Your task to perform on an android device: choose inbox layout in the gmail app Image 0: 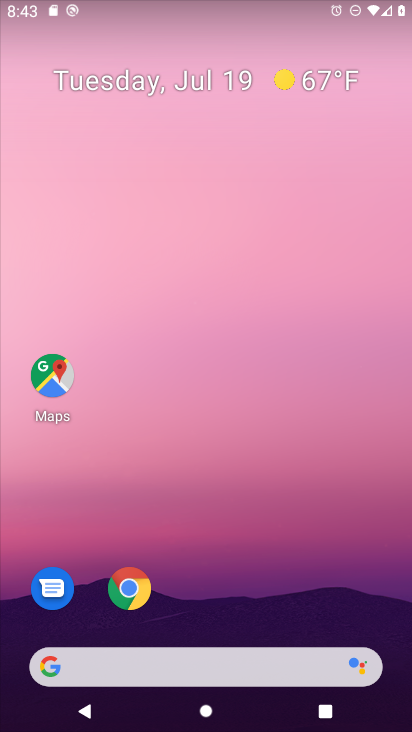
Step 0: drag from (352, 606) to (363, 117)
Your task to perform on an android device: choose inbox layout in the gmail app Image 1: 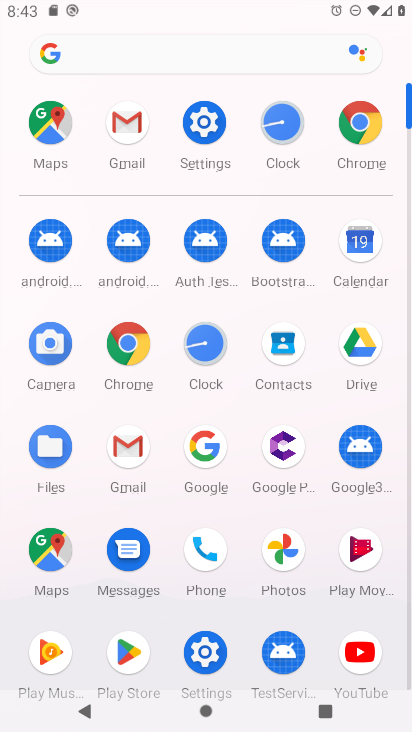
Step 1: click (124, 449)
Your task to perform on an android device: choose inbox layout in the gmail app Image 2: 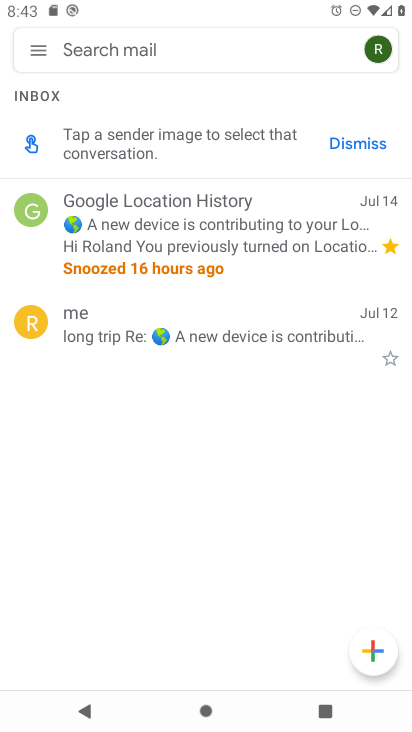
Step 2: click (38, 52)
Your task to perform on an android device: choose inbox layout in the gmail app Image 3: 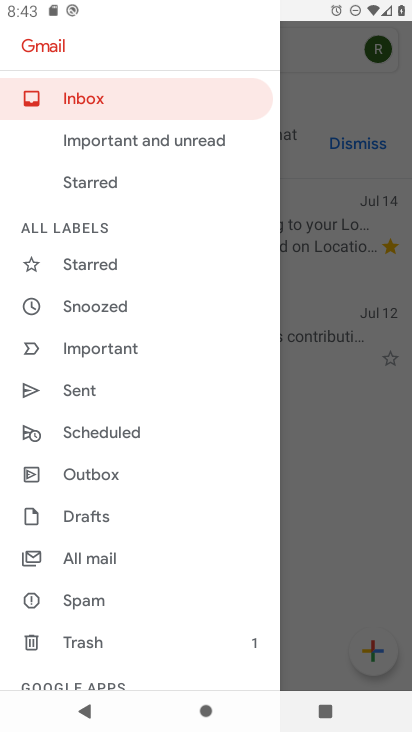
Step 3: drag from (225, 398) to (228, 347)
Your task to perform on an android device: choose inbox layout in the gmail app Image 4: 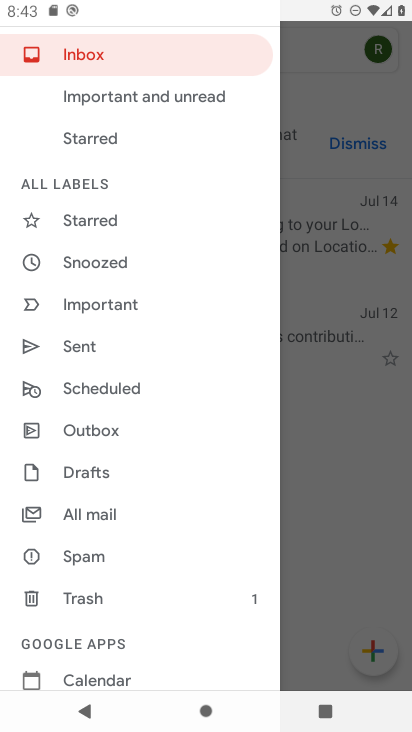
Step 4: drag from (209, 437) to (214, 392)
Your task to perform on an android device: choose inbox layout in the gmail app Image 5: 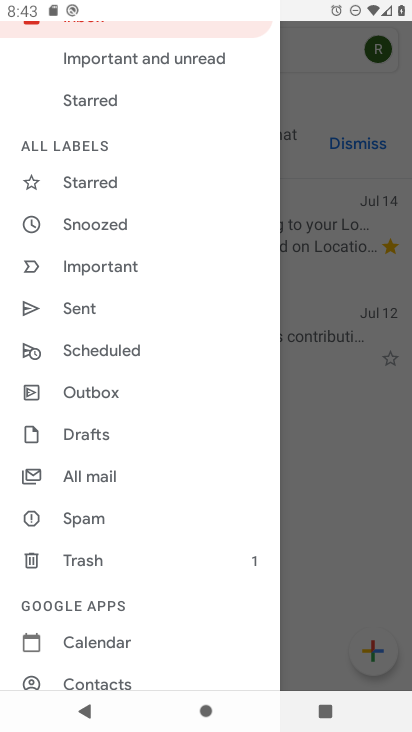
Step 5: drag from (203, 465) to (208, 349)
Your task to perform on an android device: choose inbox layout in the gmail app Image 6: 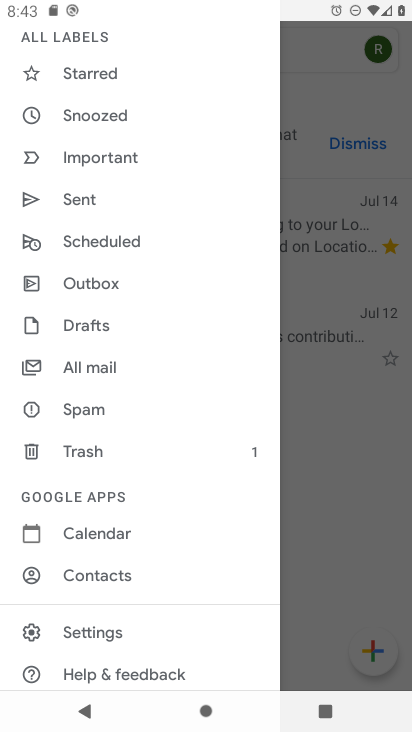
Step 6: click (176, 639)
Your task to perform on an android device: choose inbox layout in the gmail app Image 7: 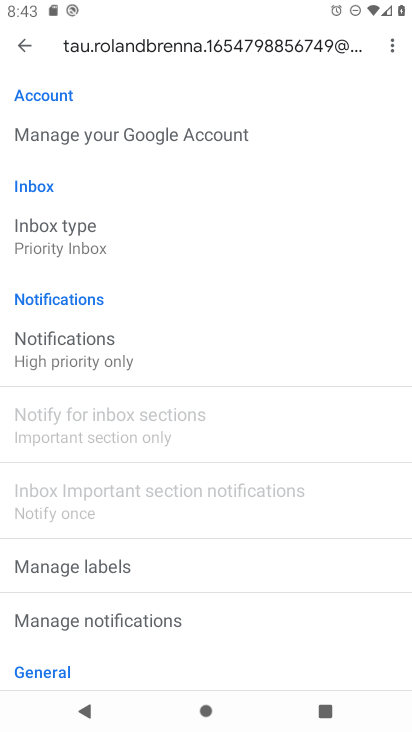
Step 7: drag from (337, 549) to (342, 468)
Your task to perform on an android device: choose inbox layout in the gmail app Image 8: 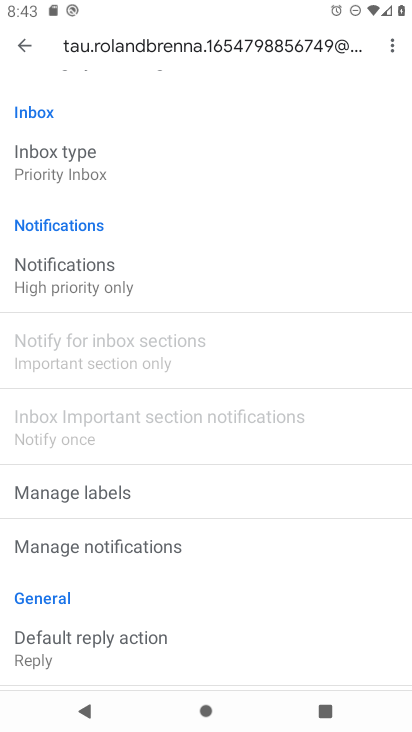
Step 8: drag from (351, 587) to (356, 498)
Your task to perform on an android device: choose inbox layout in the gmail app Image 9: 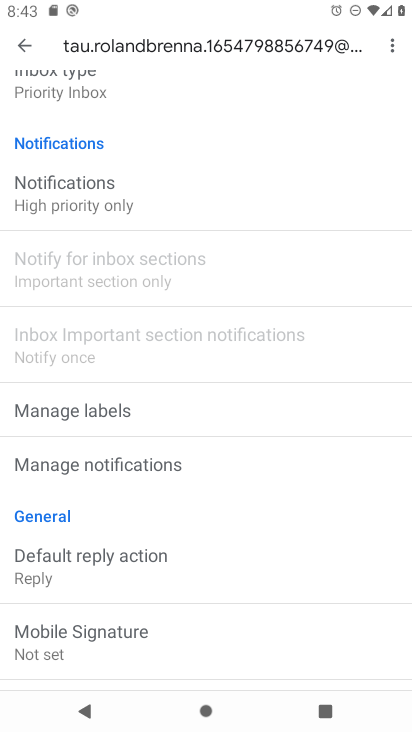
Step 9: drag from (338, 576) to (341, 497)
Your task to perform on an android device: choose inbox layout in the gmail app Image 10: 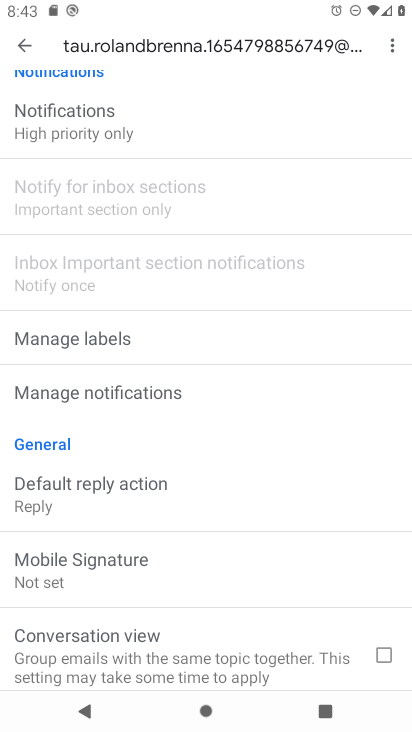
Step 10: drag from (321, 568) to (326, 484)
Your task to perform on an android device: choose inbox layout in the gmail app Image 11: 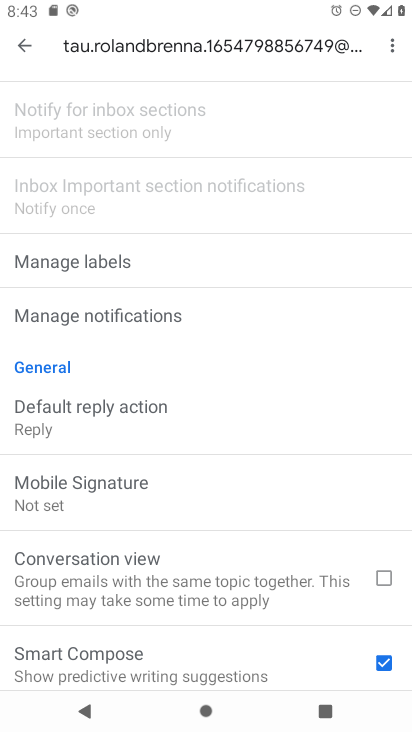
Step 11: drag from (323, 346) to (322, 435)
Your task to perform on an android device: choose inbox layout in the gmail app Image 12: 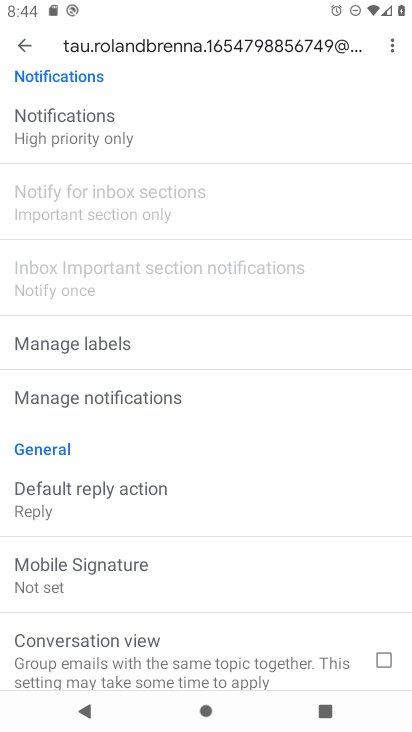
Step 12: drag from (327, 297) to (333, 408)
Your task to perform on an android device: choose inbox layout in the gmail app Image 13: 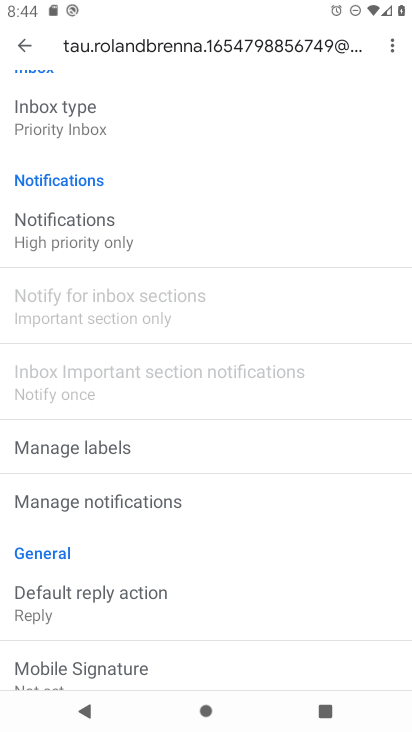
Step 13: drag from (345, 280) to (347, 391)
Your task to perform on an android device: choose inbox layout in the gmail app Image 14: 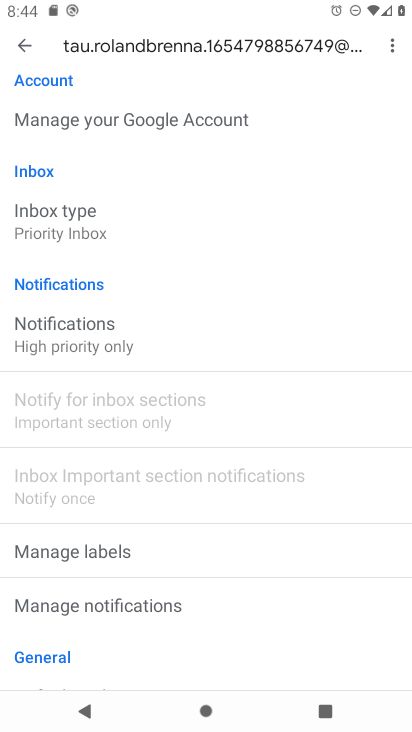
Step 14: drag from (330, 265) to (340, 400)
Your task to perform on an android device: choose inbox layout in the gmail app Image 15: 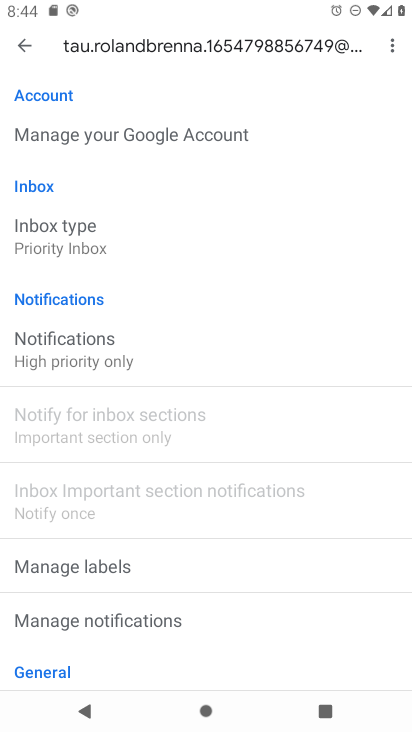
Step 15: click (111, 239)
Your task to perform on an android device: choose inbox layout in the gmail app Image 16: 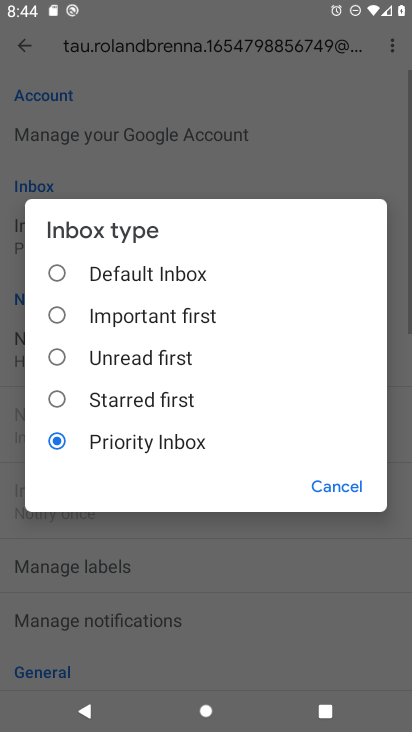
Step 16: click (131, 319)
Your task to perform on an android device: choose inbox layout in the gmail app Image 17: 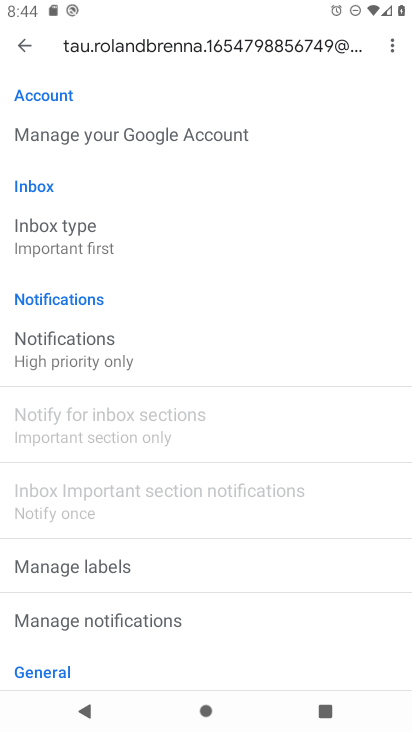
Step 17: task complete